Your task to perform on an android device: Go to location settings Image 0: 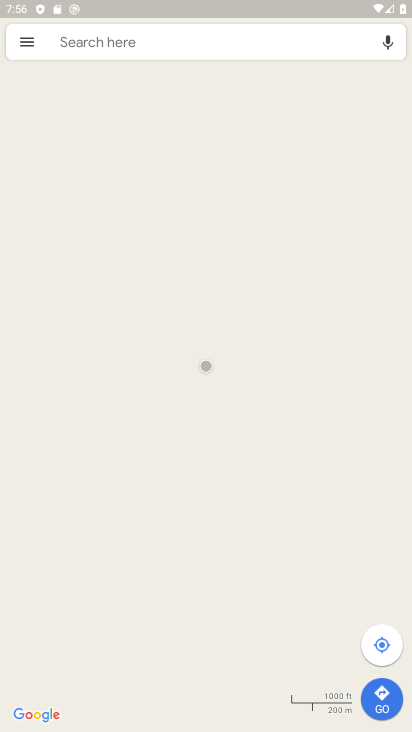
Step 0: press home button
Your task to perform on an android device: Go to location settings Image 1: 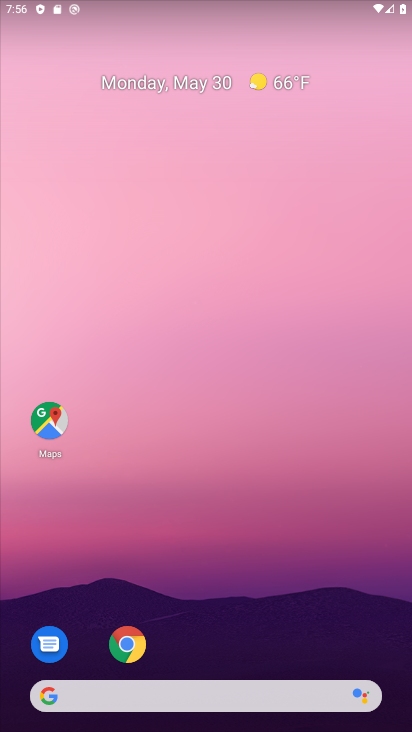
Step 1: drag from (226, 662) to (234, 107)
Your task to perform on an android device: Go to location settings Image 2: 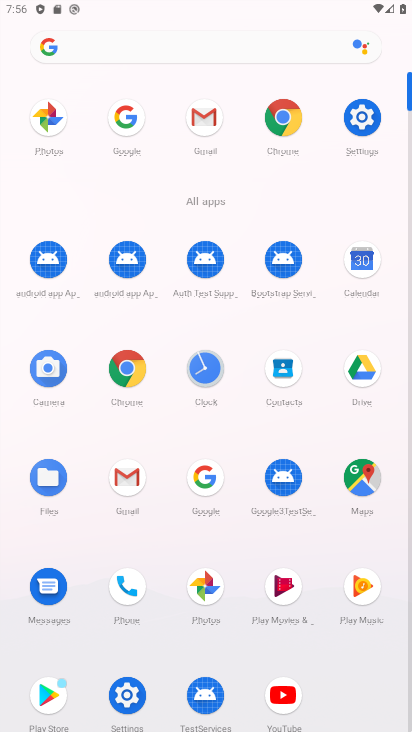
Step 2: click (364, 120)
Your task to perform on an android device: Go to location settings Image 3: 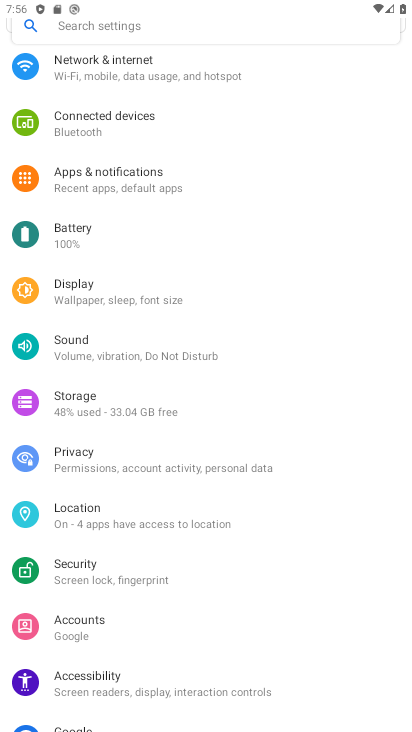
Step 3: click (77, 516)
Your task to perform on an android device: Go to location settings Image 4: 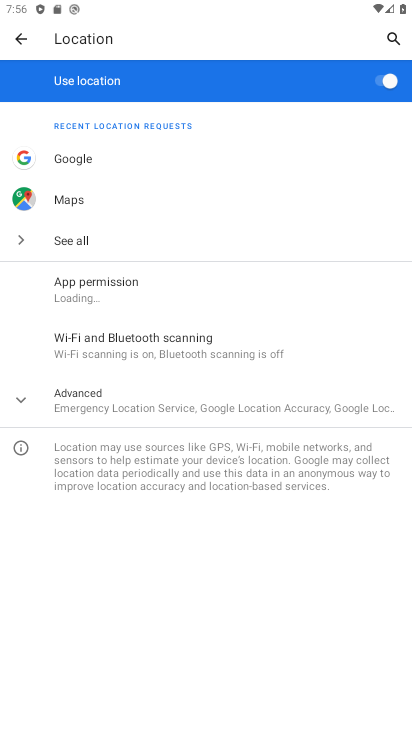
Step 4: task complete